Your task to perform on an android device: What's the weather going to be tomorrow? Image 0: 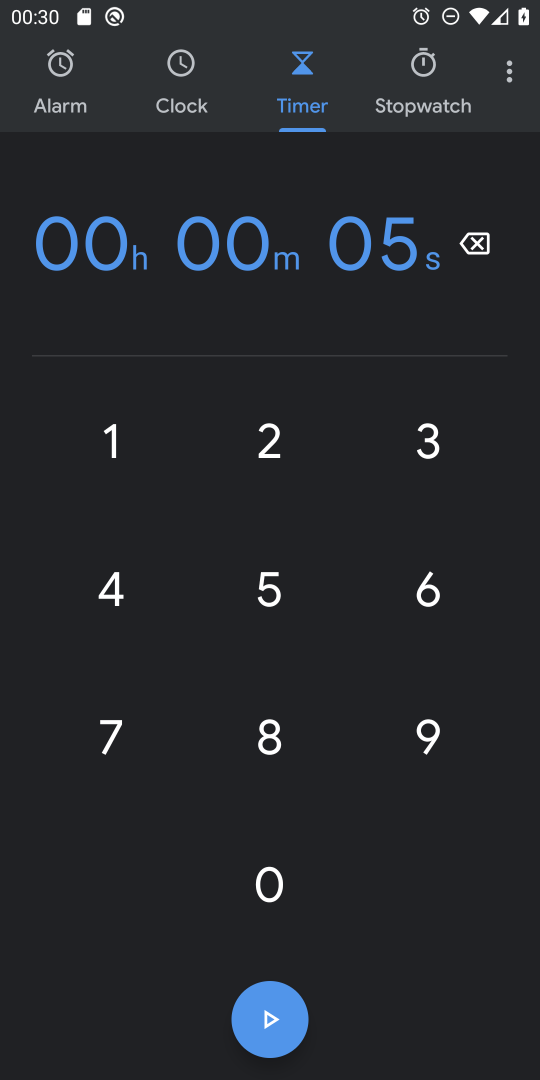
Step 0: press home button
Your task to perform on an android device: What's the weather going to be tomorrow? Image 1: 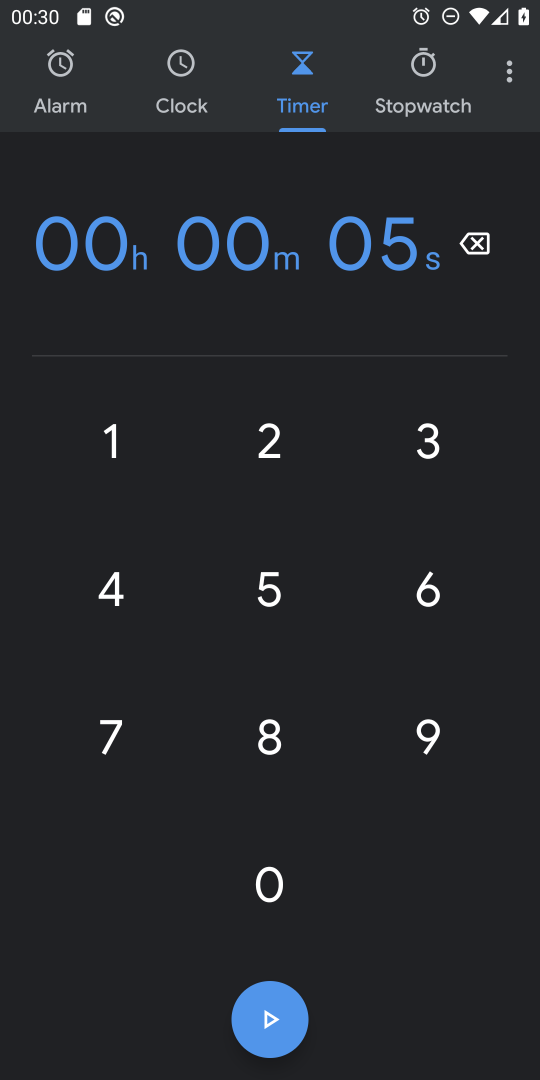
Step 1: press home button
Your task to perform on an android device: What's the weather going to be tomorrow? Image 2: 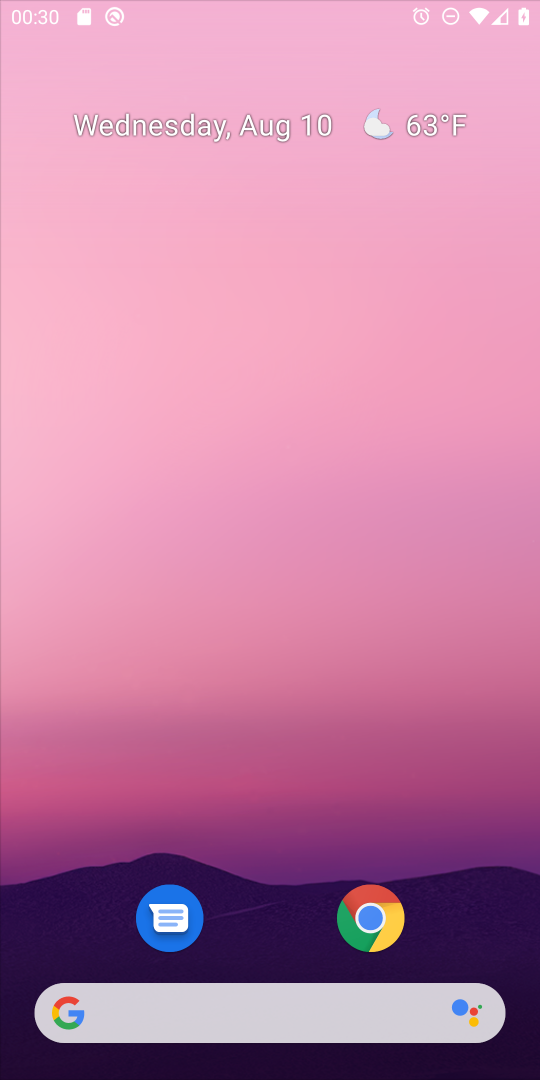
Step 2: press home button
Your task to perform on an android device: What's the weather going to be tomorrow? Image 3: 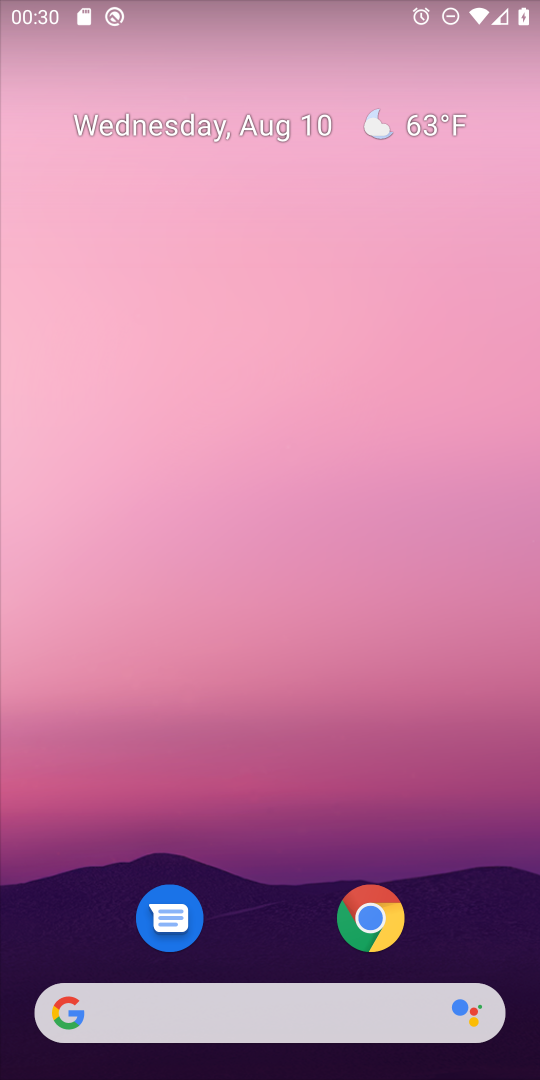
Step 3: click (440, 123)
Your task to perform on an android device: What's the weather going to be tomorrow? Image 4: 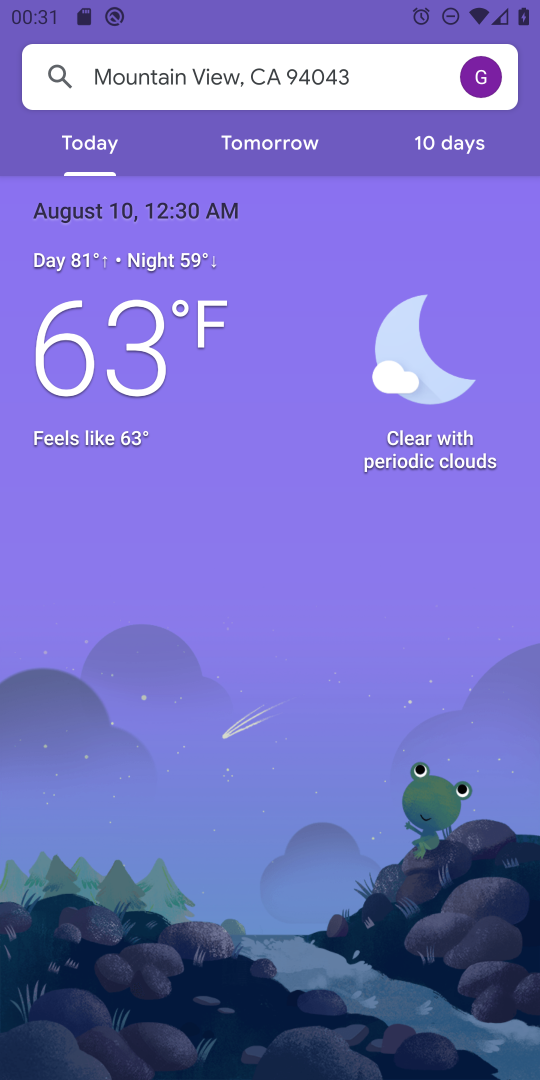
Step 4: click (304, 122)
Your task to perform on an android device: What's the weather going to be tomorrow? Image 5: 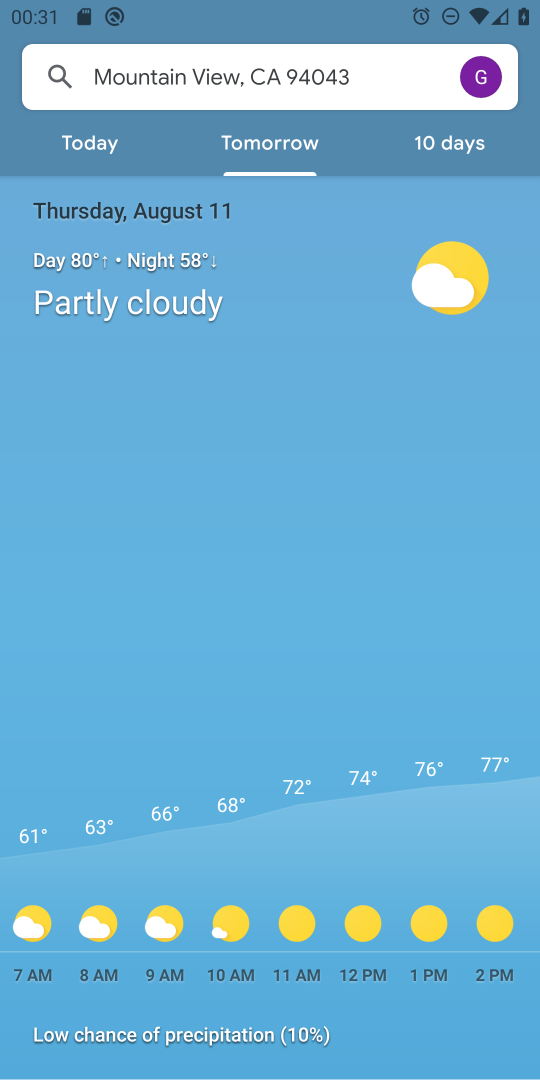
Step 5: task complete